Your task to perform on an android device: check storage Image 0: 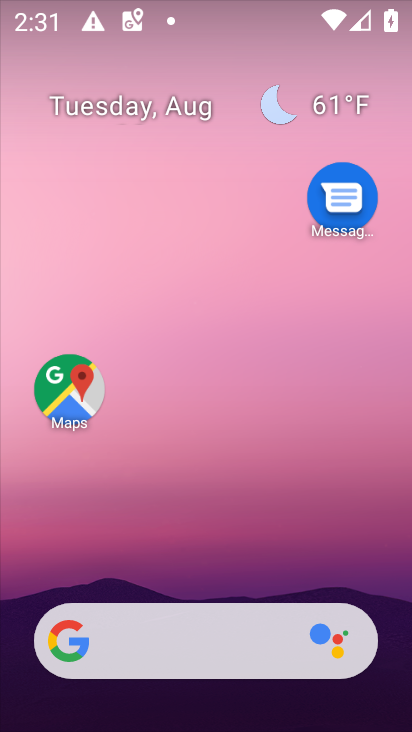
Step 0: drag from (244, 575) to (194, 4)
Your task to perform on an android device: check storage Image 1: 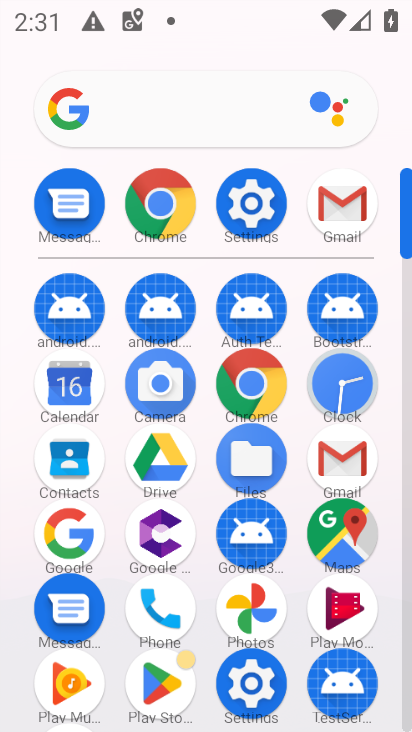
Step 1: click (265, 231)
Your task to perform on an android device: check storage Image 2: 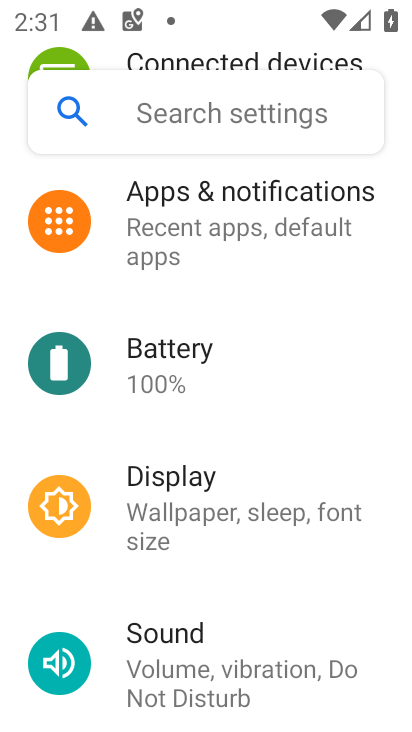
Step 2: drag from (245, 480) to (280, 191)
Your task to perform on an android device: check storage Image 3: 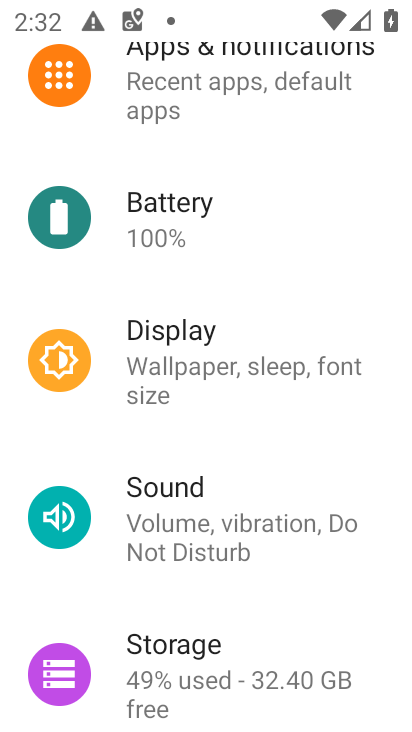
Step 3: click (237, 646)
Your task to perform on an android device: check storage Image 4: 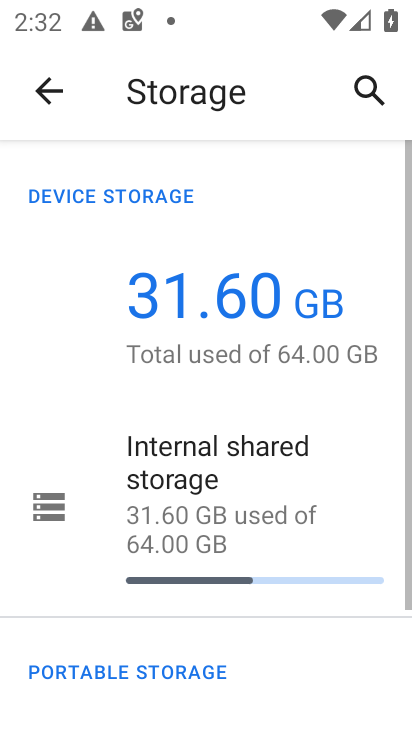
Step 4: task complete